Your task to perform on an android device: check data usage Image 0: 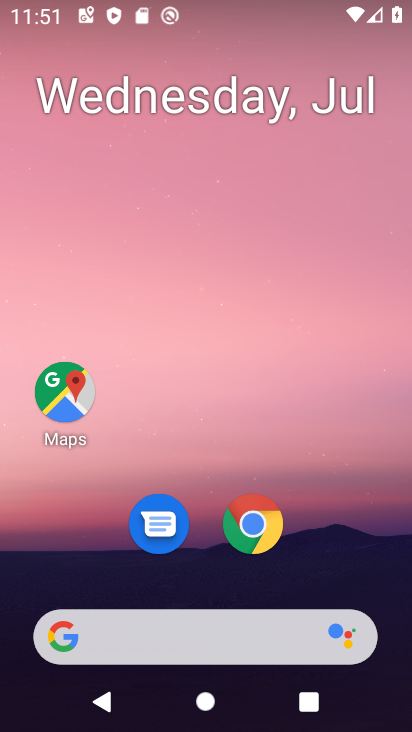
Step 0: press home button
Your task to perform on an android device: check data usage Image 1: 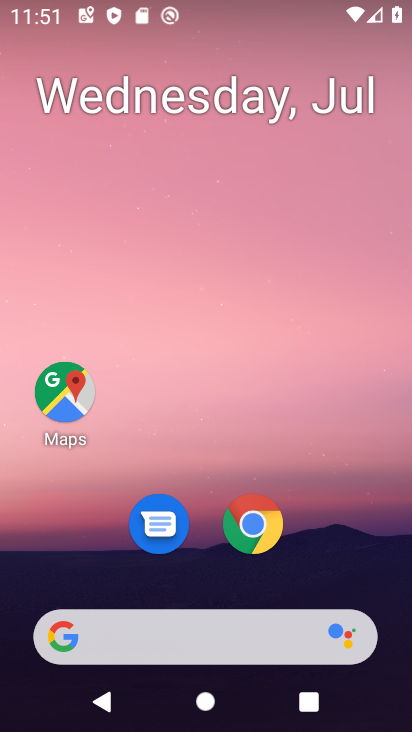
Step 1: drag from (204, 623) to (283, 213)
Your task to perform on an android device: check data usage Image 2: 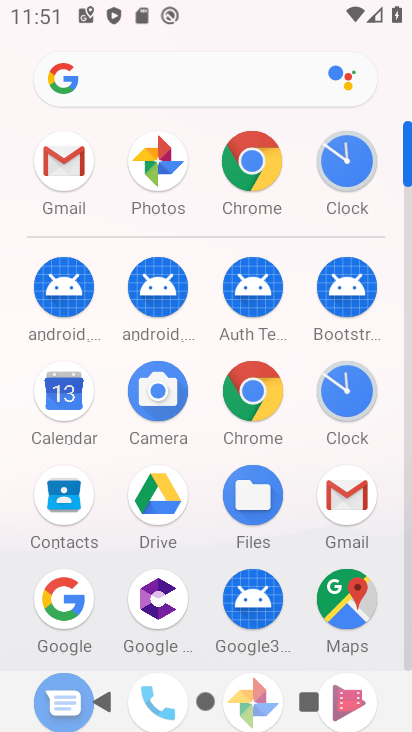
Step 2: drag from (211, 582) to (310, 154)
Your task to perform on an android device: check data usage Image 3: 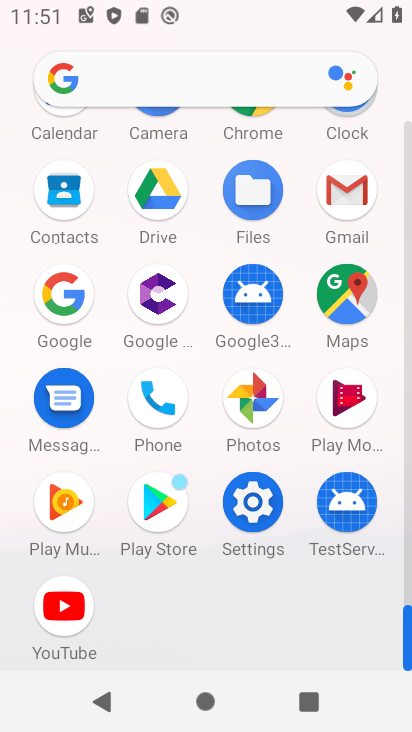
Step 3: click (250, 494)
Your task to perform on an android device: check data usage Image 4: 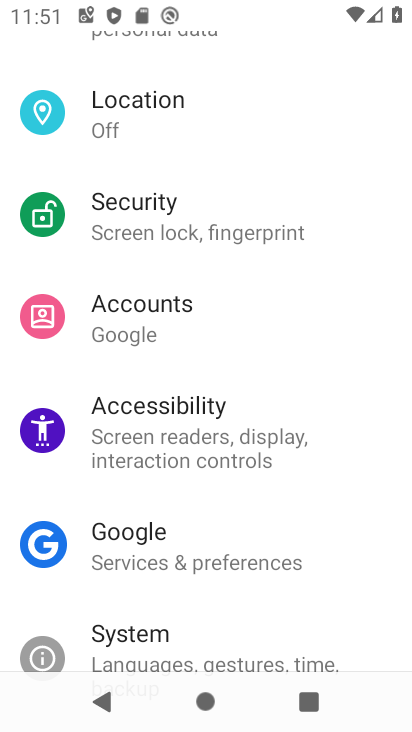
Step 4: drag from (274, 114) to (219, 600)
Your task to perform on an android device: check data usage Image 5: 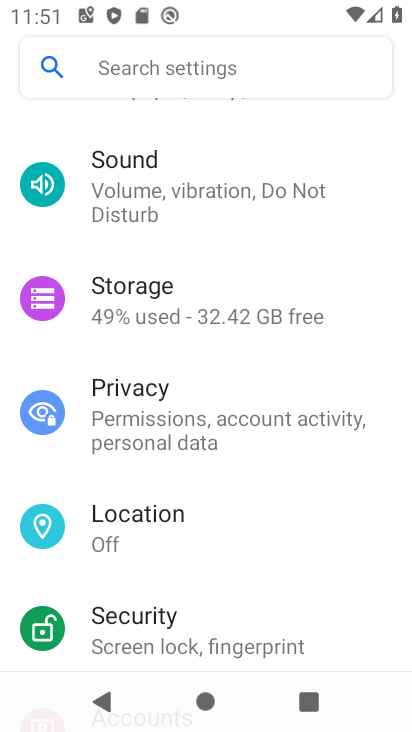
Step 5: drag from (274, 144) to (230, 526)
Your task to perform on an android device: check data usage Image 6: 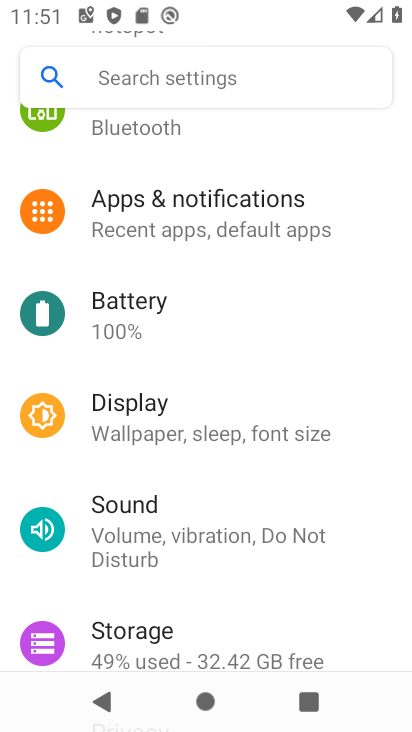
Step 6: drag from (283, 310) to (205, 574)
Your task to perform on an android device: check data usage Image 7: 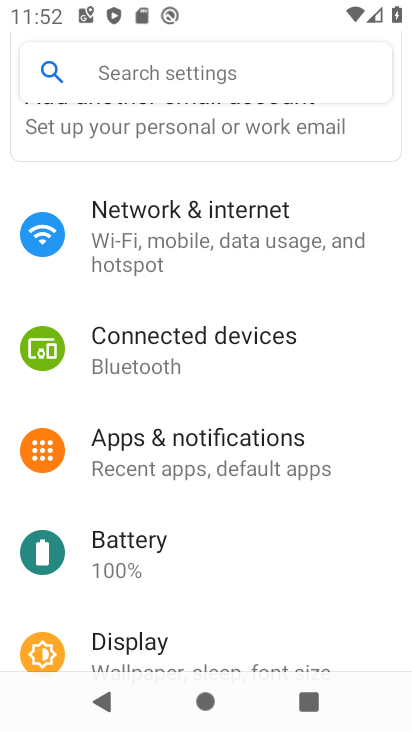
Step 7: click (234, 214)
Your task to perform on an android device: check data usage Image 8: 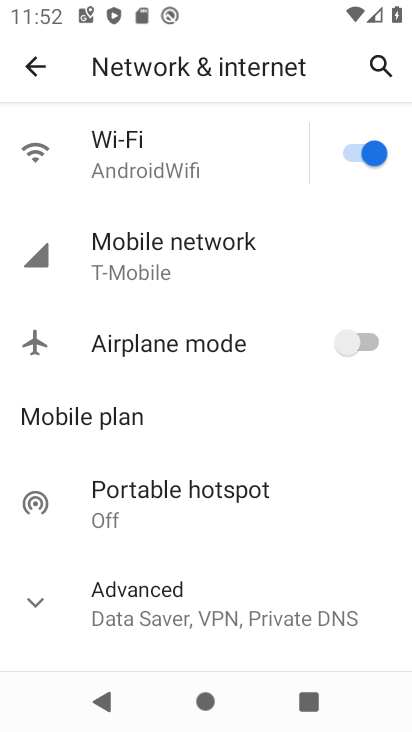
Step 8: click (168, 163)
Your task to perform on an android device: check data usage Image 9: 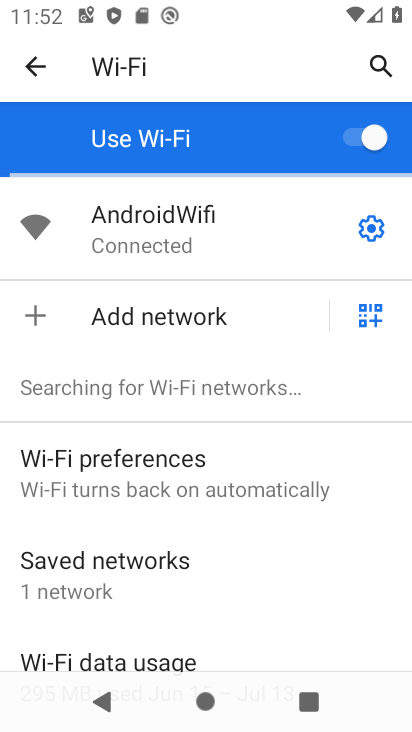
Step 9: drag from (254, 596) to (304, 278)
Your task to perform on an android device: check data usage Image 10: 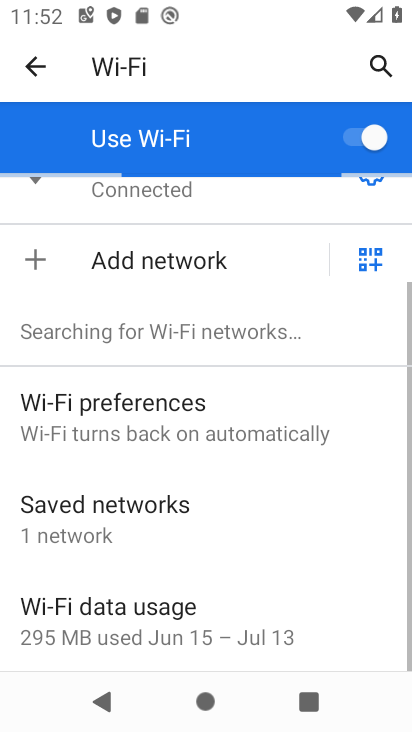
Step 10: click (146, 619)
Your task to perform on an android device: check data usage Image 11: 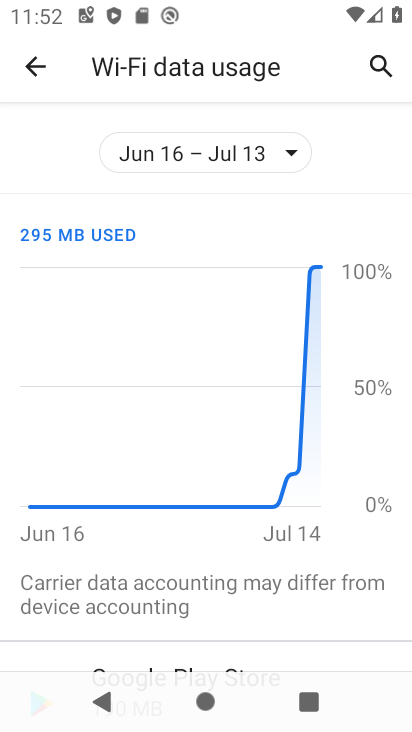
Step 11: task complete